Your task to perform on an android device: snooze an email in the gmail app Image 0: 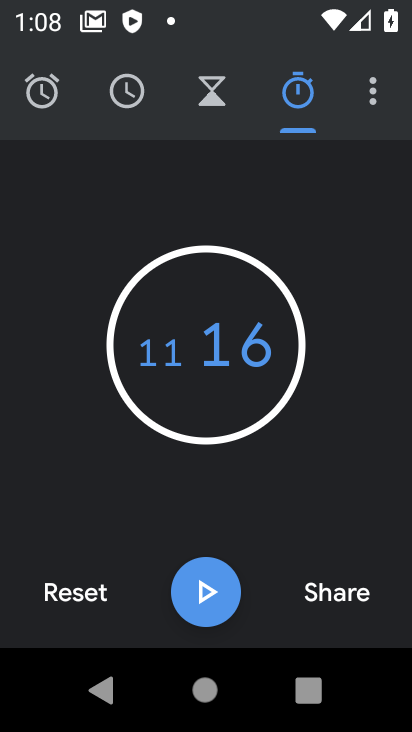
Step 0: press home button
Your task to perform on an android device: snooze an email in the gmail app Image 1: 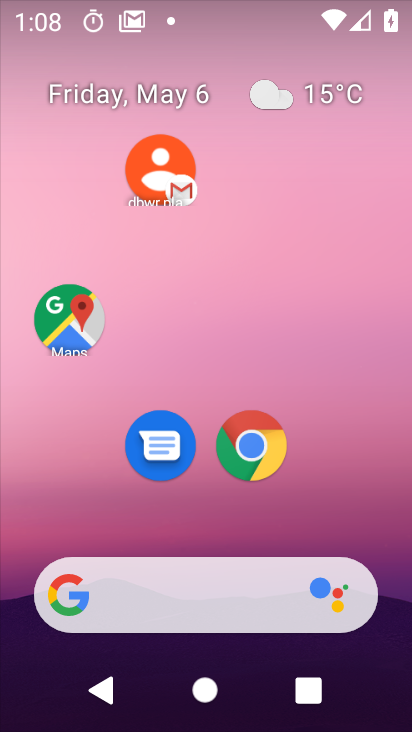
Step 1: drag from (376, 520) to (104, 34)
Your task to perform on an android device: snooze an email in the gmail app Image 2: 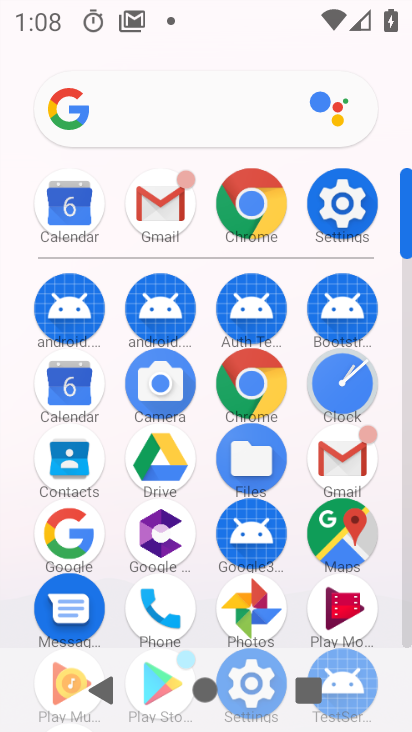
Step 2: click (342, 460)
Your task to perform on an android device: snooze an email in the gmail app Image 3: 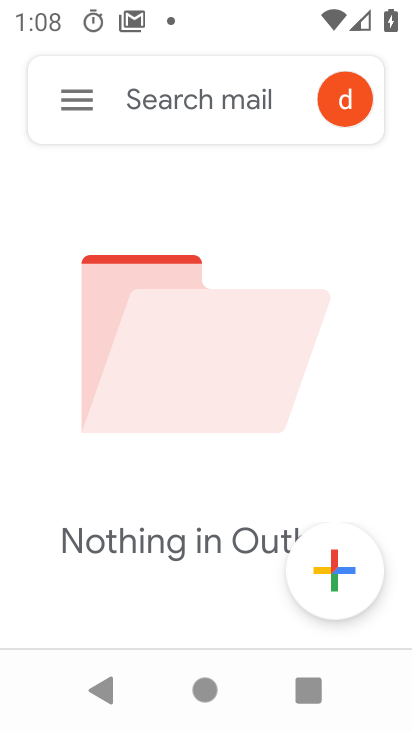
Step 3: click (63, 112)
Your task to perform on an android device: snooze an email in the gmail app Image 4: 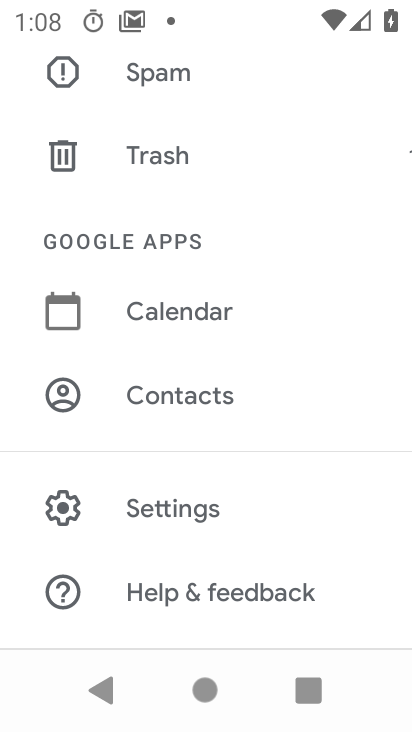
Step 4: drag from (245, 543) to (204, 72)
Your task to perform on an android device: snooze an email in the gmail app Image 5: 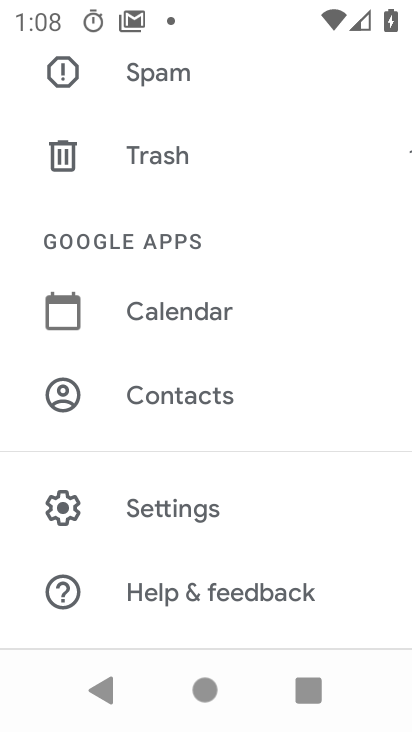
Step 5: drag from (209, 232) to (256, 567)
Your task to perform on an android device: snooze an email in the gmail app Image 6: 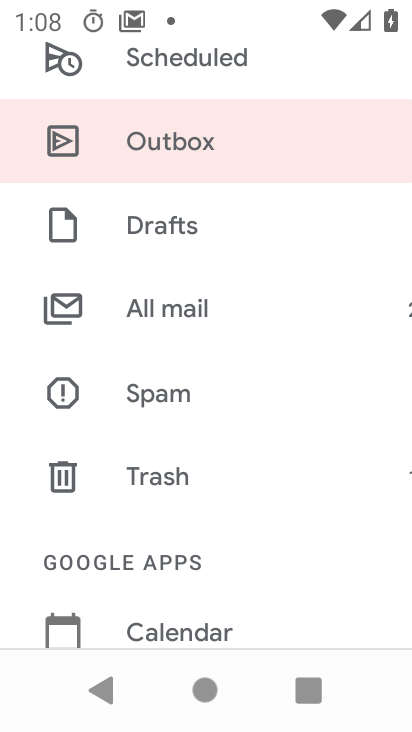
Step 6: drag from (263, 205) to (305, 467)
Your task to perform on an android device: snooze an email in the gmail app Image 7: 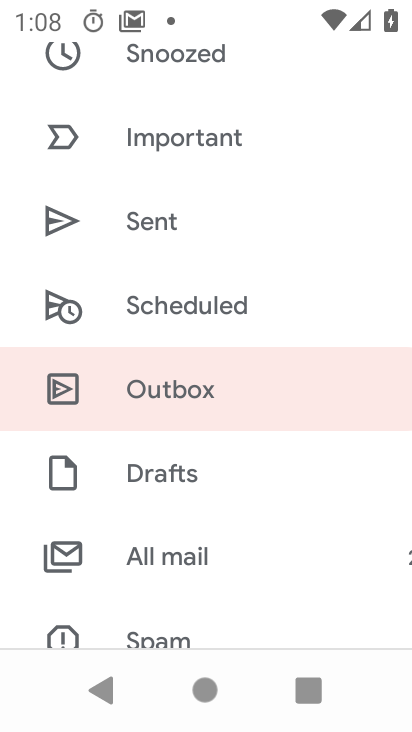
Step 7: click (174, 333)
Your task to perform on an android device: snooze an email in the gmail app Image 8: 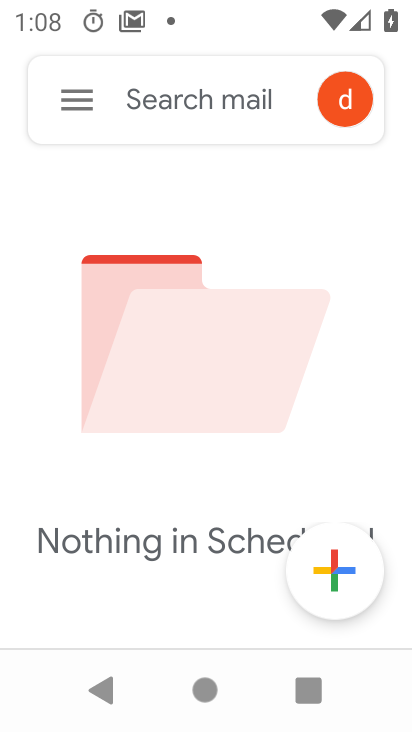
Step 8: click (79, 103)
Your task to perform on an android device: snooze an email in the gmail app Image 9: 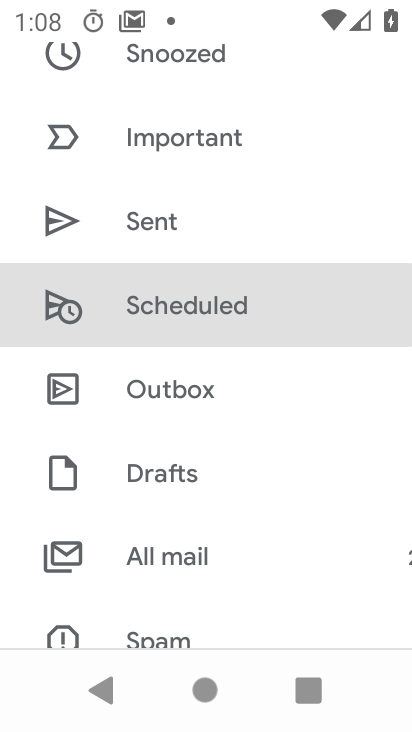
Step 9: click (168, 557)
Your task to perform on an android device: snooze an email in the gmail app Image 10: 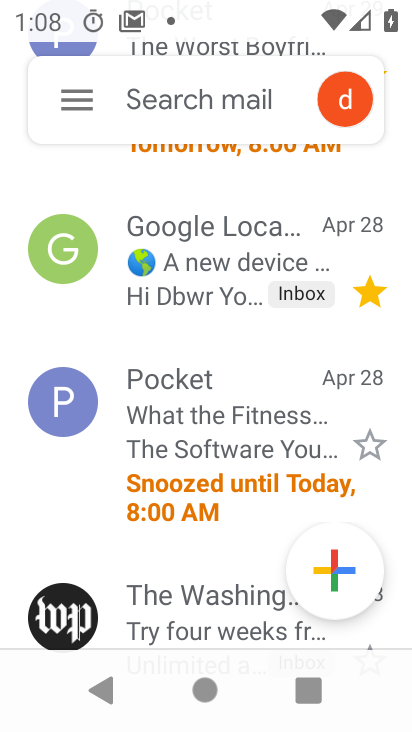
Step 10: click (210, 264)
Your task to perform on an android device: snooze an email in the gmail app Image 11: 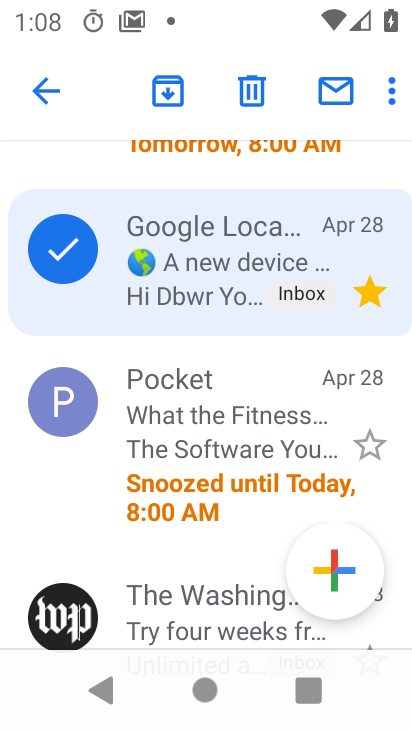
Step 11: click (384, 94)
Your task to perform on an android device: snooze an email in the gmail app Image 12: 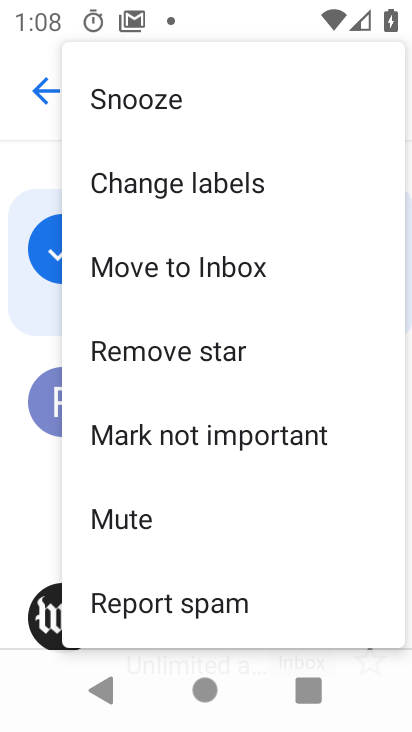
Step 12: click (138, 103)
Your task to perform on an android device: snooze an email in the gmail app Image 13: 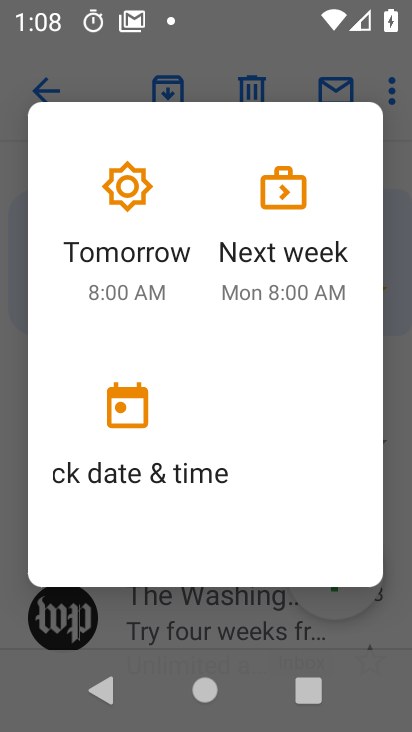
Step 13: click (145, 267)
Your task to perform on an android device: snooze an email in the gmail app Image 14: 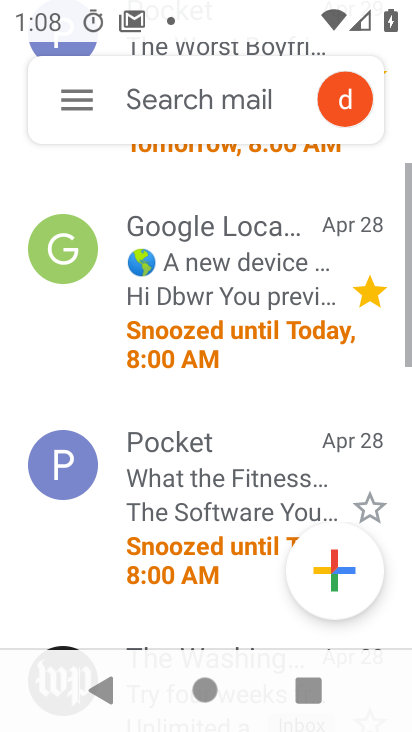
Step 14: task complete